Your task to perform on an android device: toggle data saver in the chrome app Image 0: 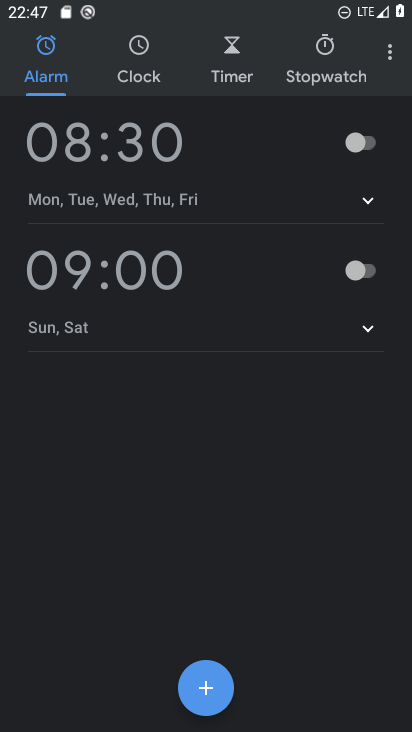
Step 0: press home button
Your task to perform on an android device: toggle data saver in the chrome app Image 1: 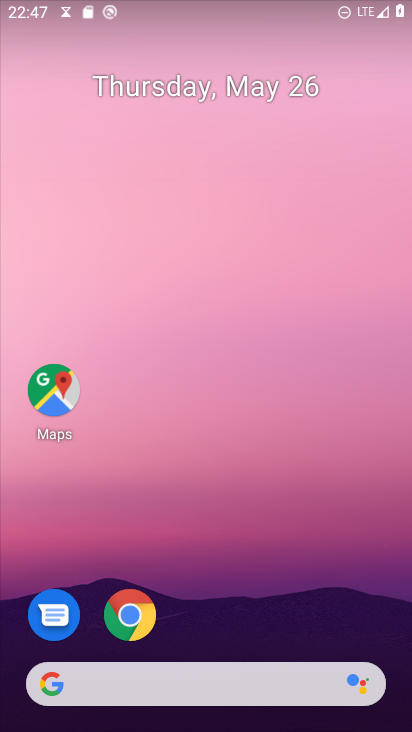
Step 1: drag from (256, 606) to (299, 239)
Your task to perform on an android device: toggle data saver in the chrome app Image 2: 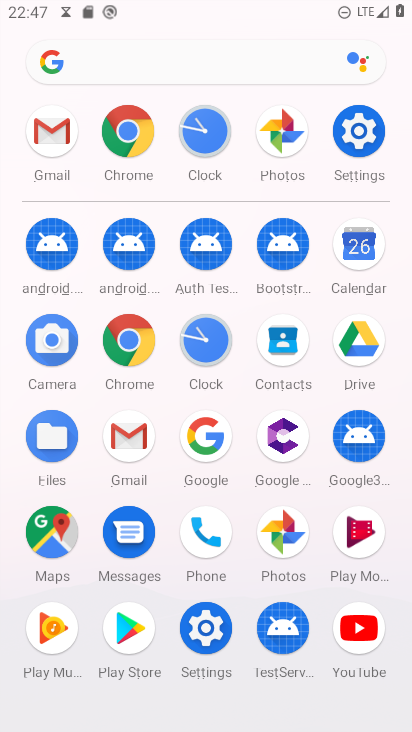
Step 2: click (365, 123)
Your task to perform on an android device: toggle data saver in the chrome app Image 3: 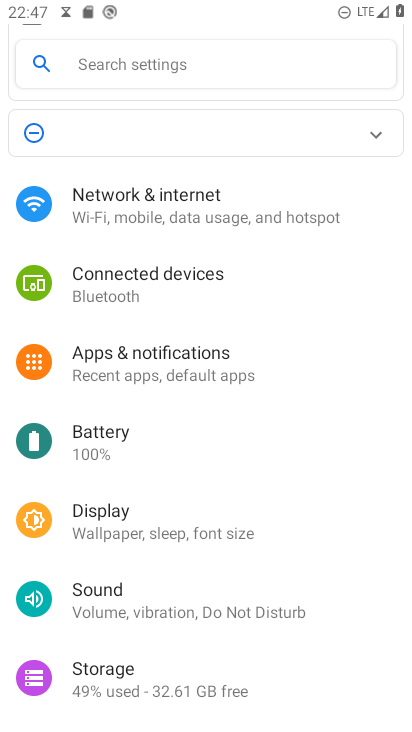
Step 3: drag from (225, 536) to (224, 392)
Your task to perform on an android device: toggle data saver in the chrome app Image 4: 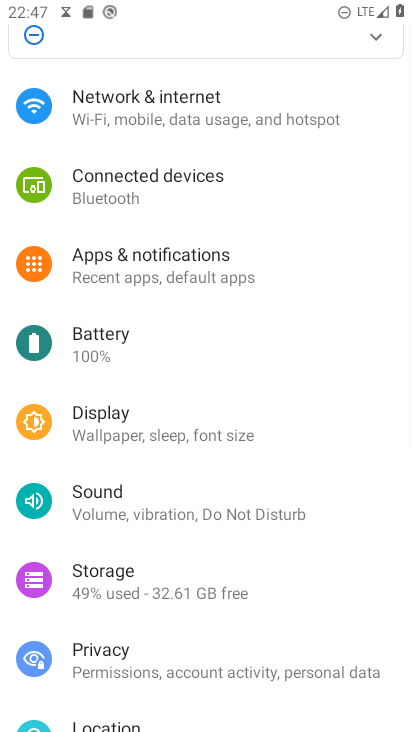
Step 4: press home button
Your task to perform on an android device: toggle data saver in the chrome app Image 5: 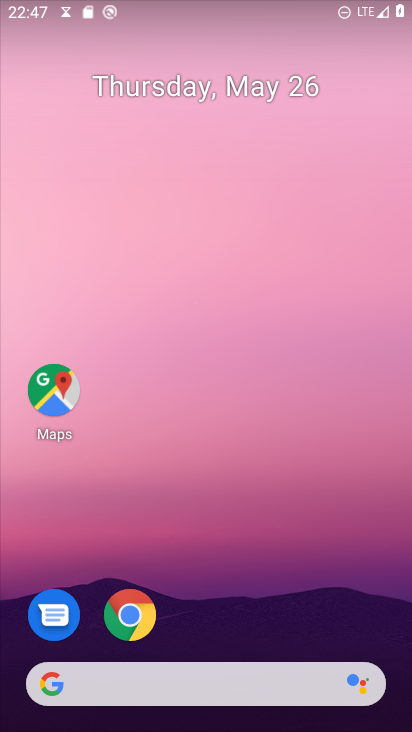
Step 5: drag from (167, 571) to (177, 300)
Your task to perform on an android device: toggle data saver in the chrome app Image 6: 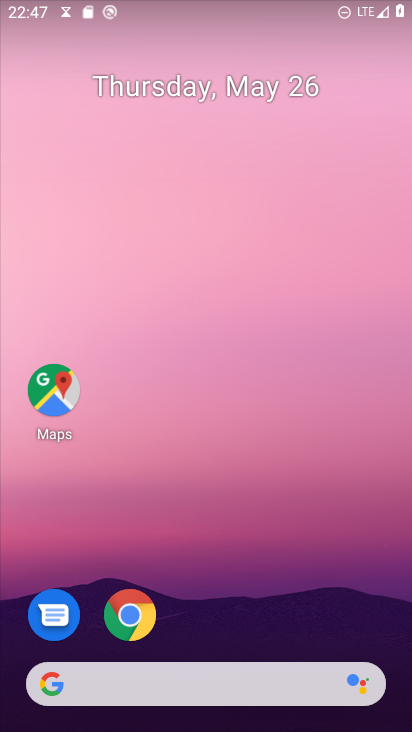
Step 6: drag from (226, 512) to (245, 299)
Your task to perform on an android device: toggle data saver in the chrome app Image 7: 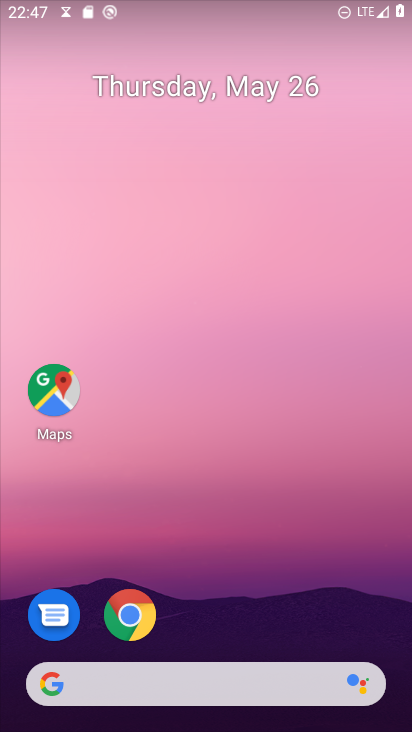
Step 7: drag from (202, 595) to (233, 255)
Your task to perform on an android device: toggle data saver in the chrome app Image 8: 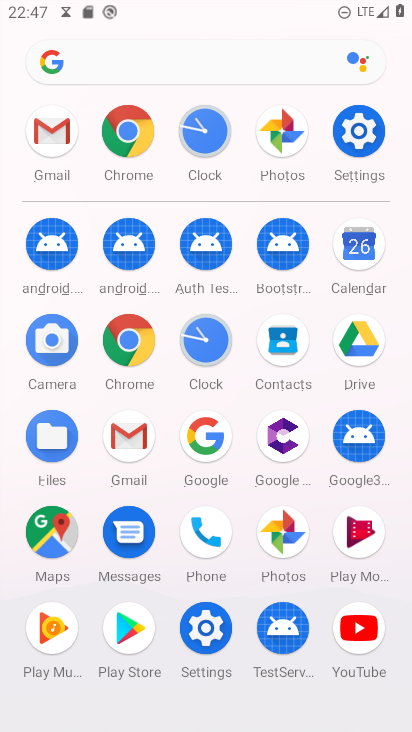
Step 8: click (132, 340)
Your task to perform on an android device: toggle data saver in the chrome app Image 9: 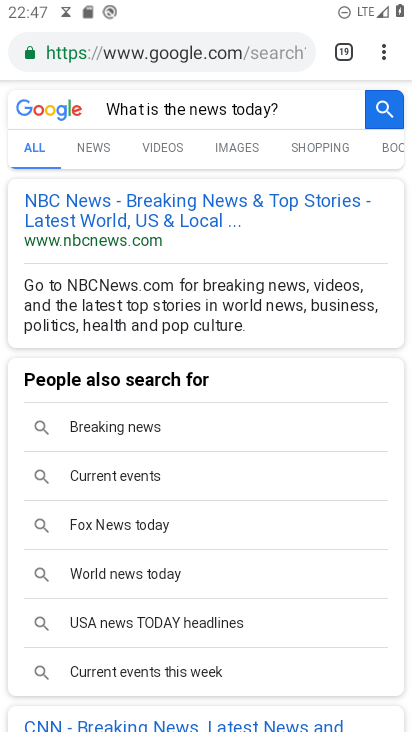
Step 9: click (381, 53)
Your task to perform on an android device: toggle data saver in the chrome app Image 10: 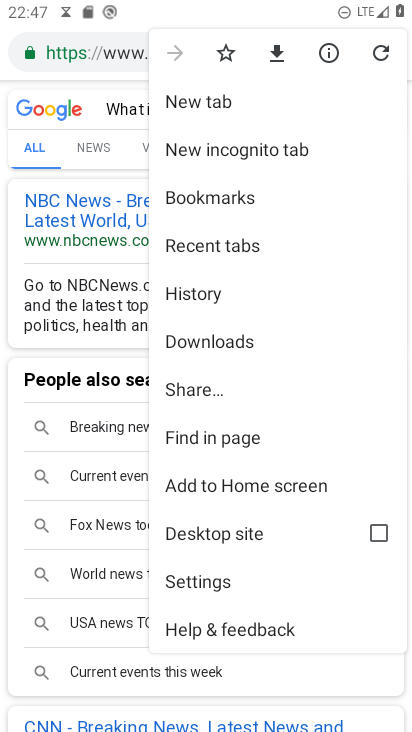
Step 10: click (228, 575)
Your task to perform on an android device: toggle data saver in the chrome app Image 11: 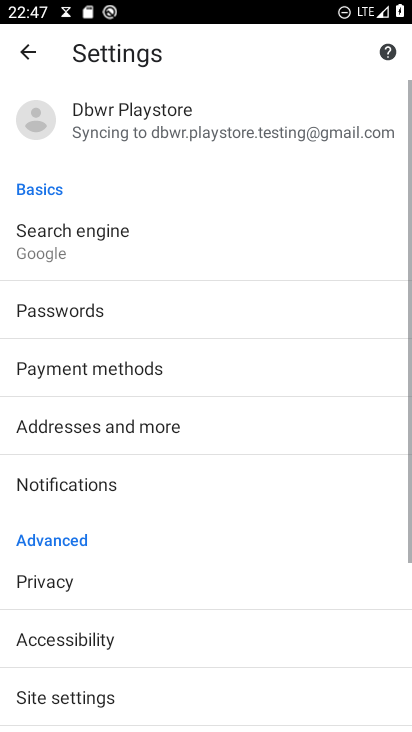
Step 11: drag from (121, 572) to (191, 230)
Your task to perform on an android device: toggle data saver in the chrome app Image 12: 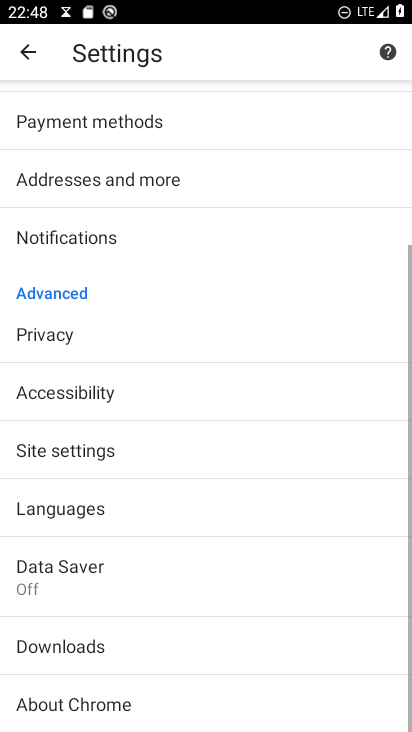
Step 12: click (124, 577)
Your task to perform on an android device: toggle data saver in the chrome app Image 13: 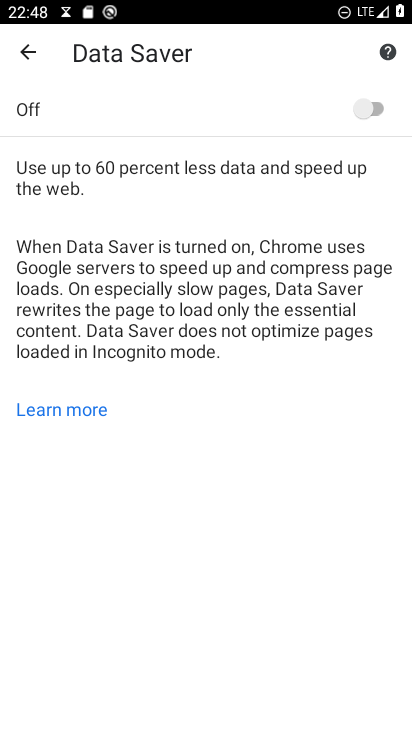
Step 13: click (367, 108)
Your task to perform on an android device: toggle data saver in the chrome app Image 14: 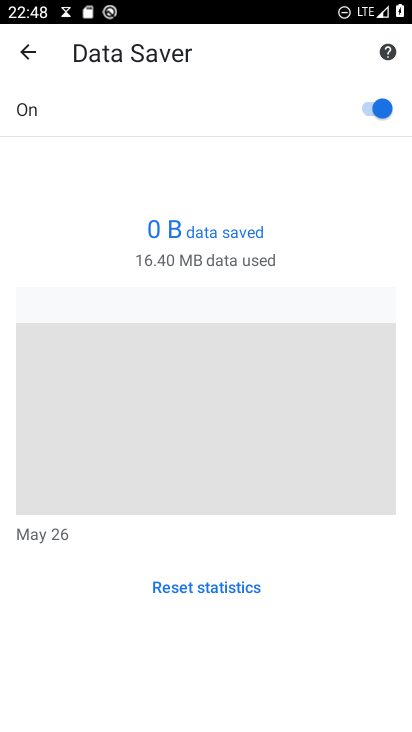
Step 14: task complete